Your task to perform on an android device: Open Google Chrome and open the bookmarks view Image 0: 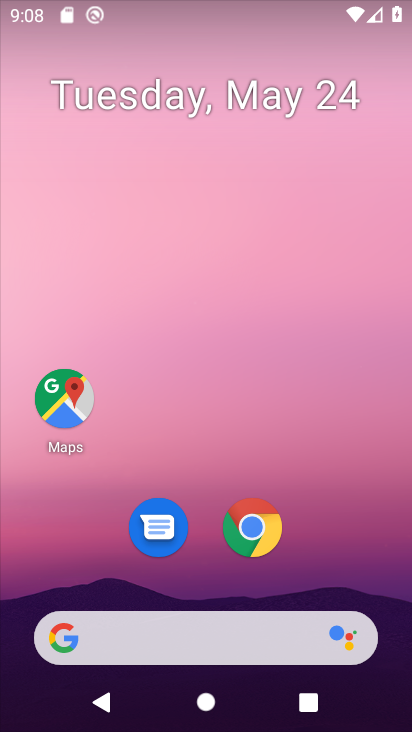
Step 0: click (269, 532)
Your task to perform on an android device: Open Google Chrome and open the bookmarks view Image 1: 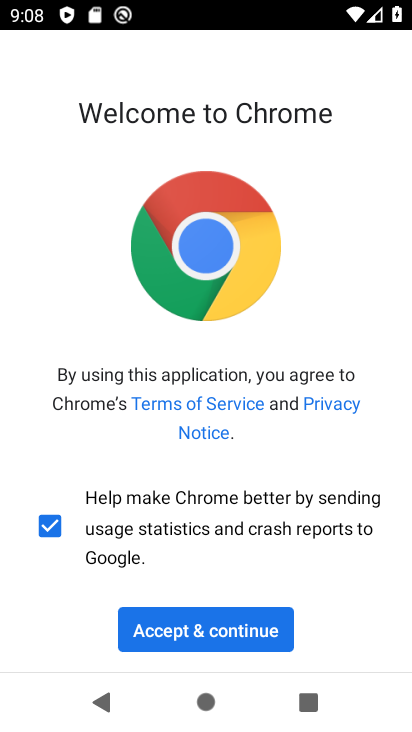
Step 1: click (214, 637)
Your task to perform on an android device: Open Google Chrome and open the bookmarks view Image 2: 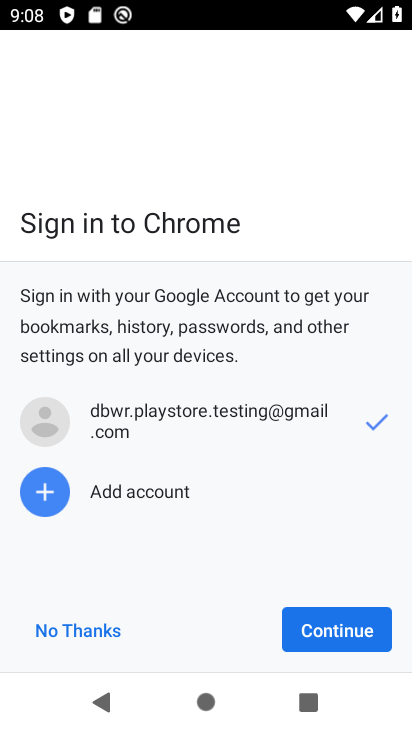
Step 2: click (332, 615)
Your task to perform on an android device: Open Google Chrome and open the bookmarks view Image 3: 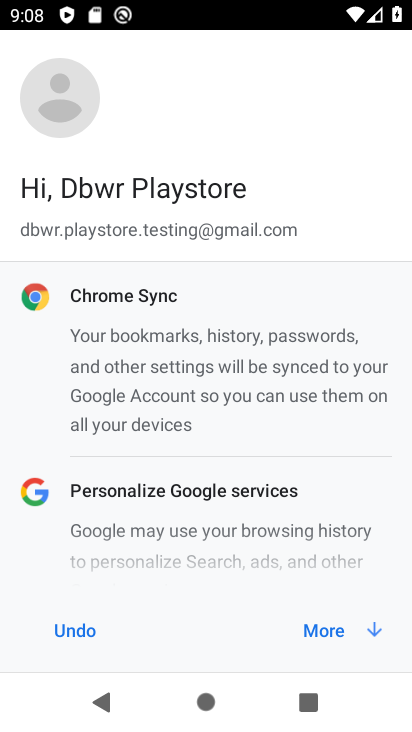
Step 3: click (343, 626)
Your task to perform on an android device: Open Google Chrome and open the bookmarks view Image 4: 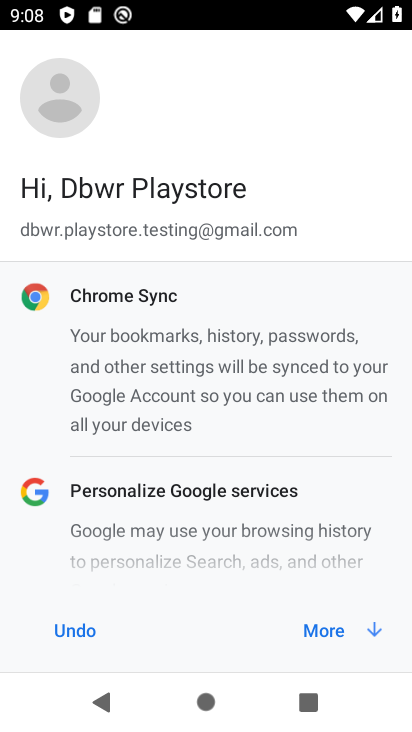
Step 4: click (343, 626)
Your task to perform on an android device: Open Google Chrome and open the bookmarks view Image 5: 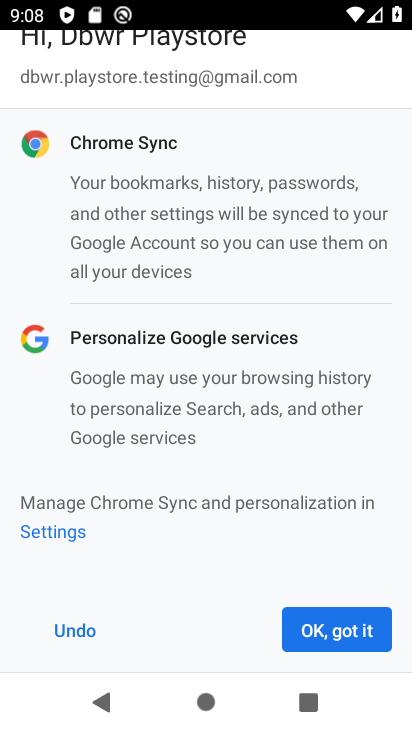
Step 5: click (343, 626)
Your task to perform on an android device: Open Google Chrome and open the bookmarks view Image 6: 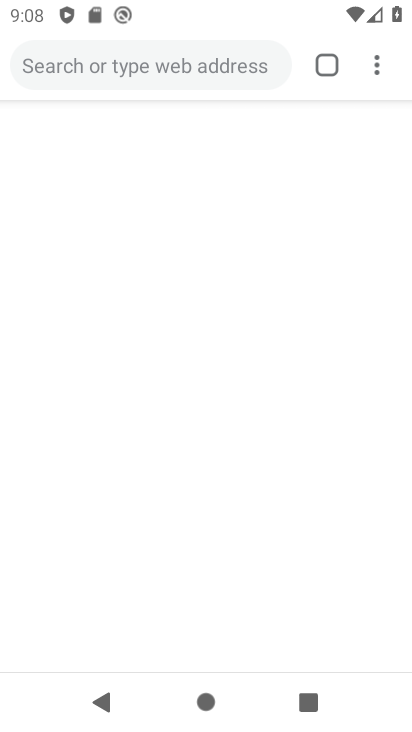
Step 6: click (343, 626)
Your task to perform on an android device: Open Google Chrome and open the bookmarks view Image 7: 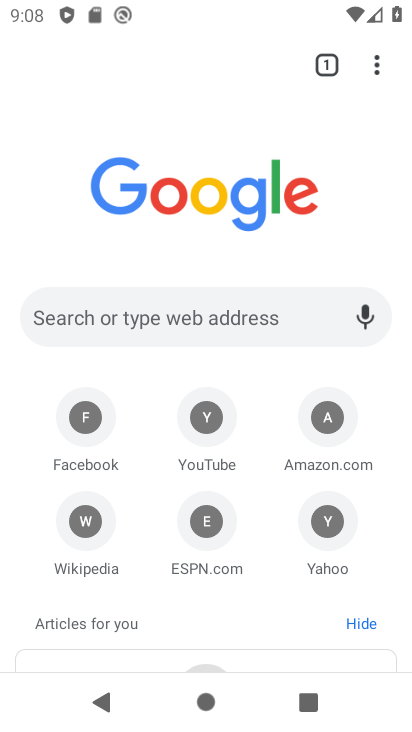
Step 7: click (373, 63)
Your task to perform on an android device: Open Google Chrome and open the bookmarks view Image 8: 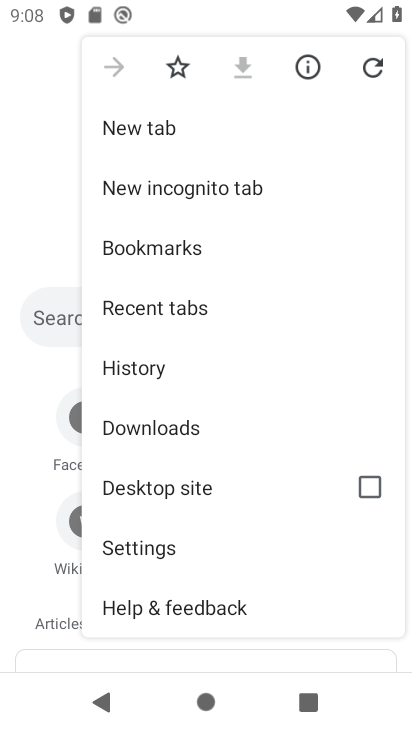
Step 8: click (184, 244)
Your task to perform on an android device: Open Google Chrome and open the bookmarks view Image 9: 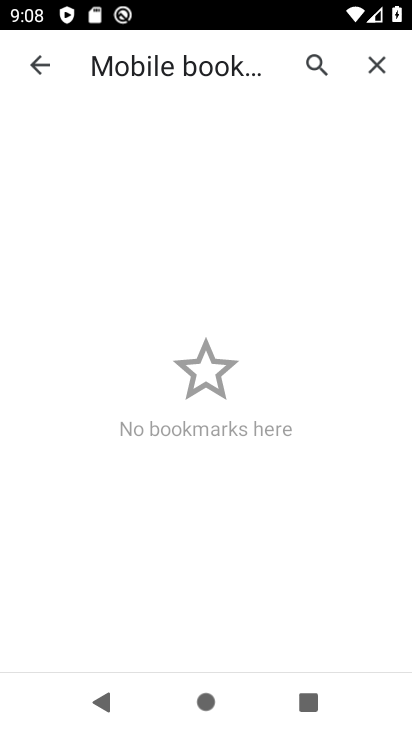
Step 9: task complete